Your task to perform on an android device: turn on data saver in the chrome app Image 0: 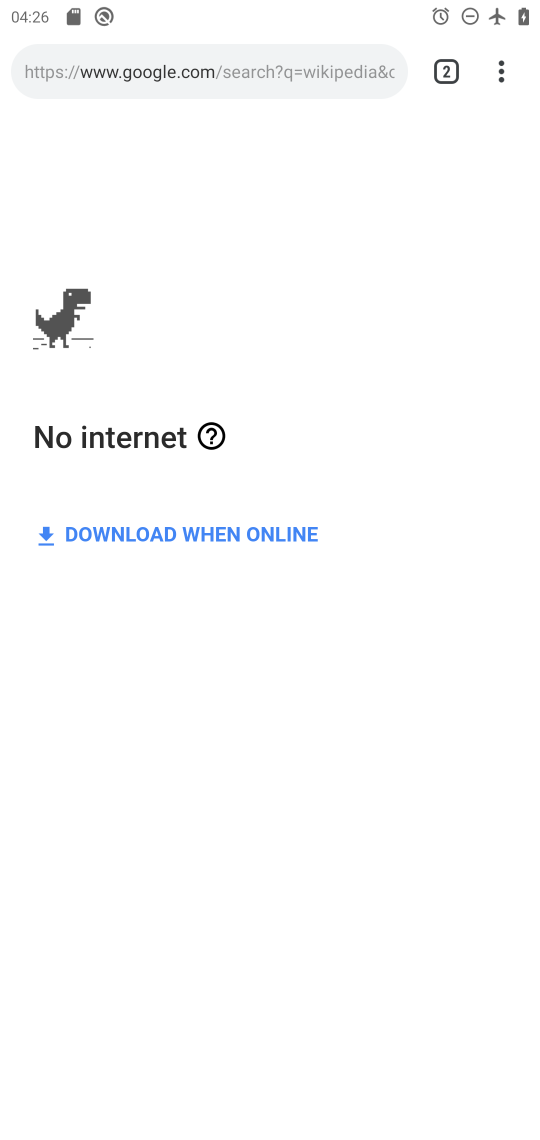
Step 0: press home button
Your task to perform on an android device: turn on data saver in the chrome app Image 1: 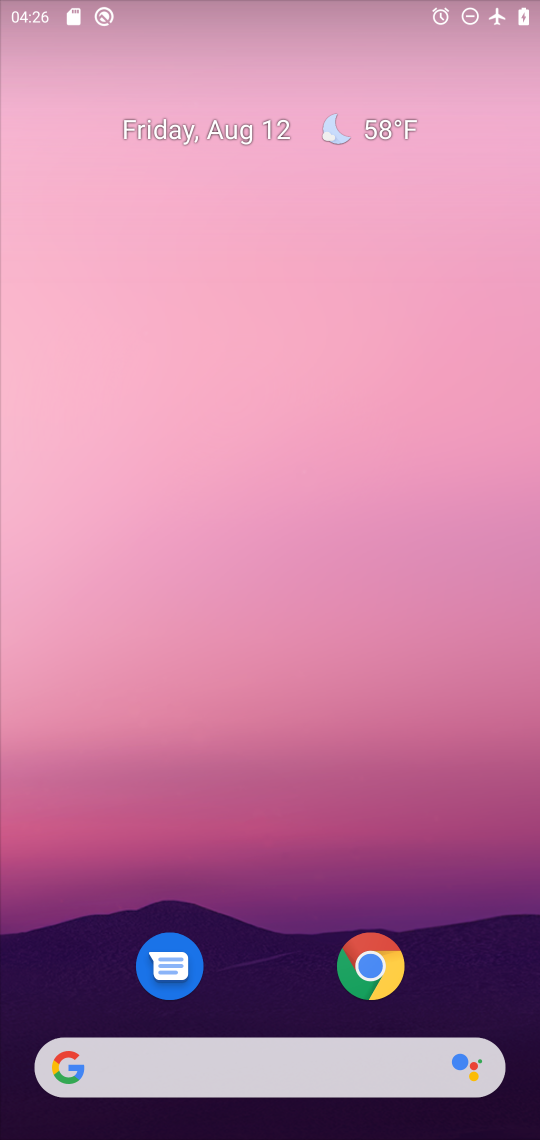
Step 1: drag from (359, 837) to (279, 12)
Your task to perform on an android device: turn on data saver in the chrome app Image 2: 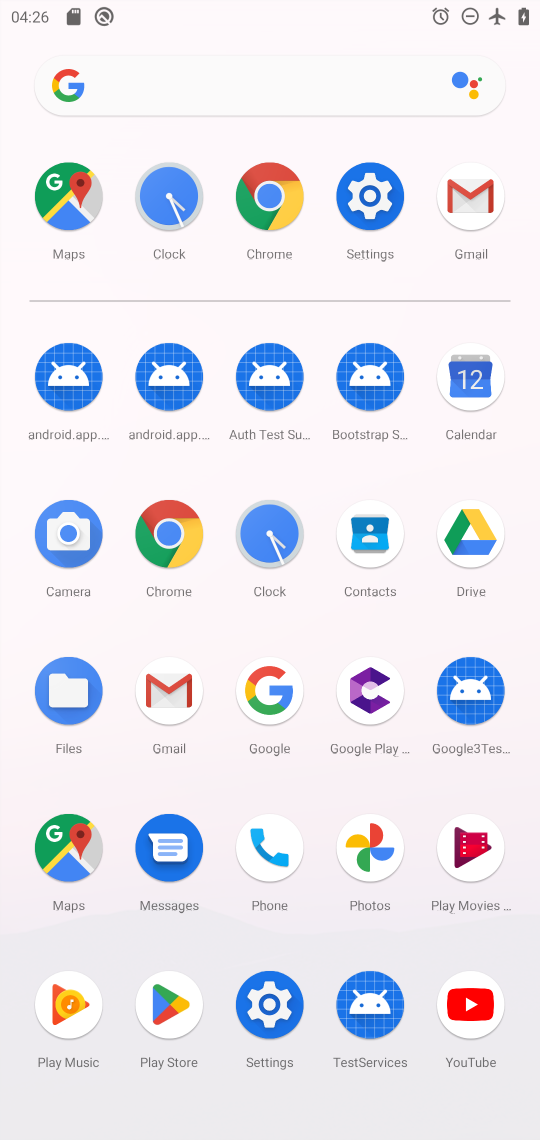
Step 2: click (163, 529)
Your task to perform on an android device: turn on data saver in the chrome app Image 3: 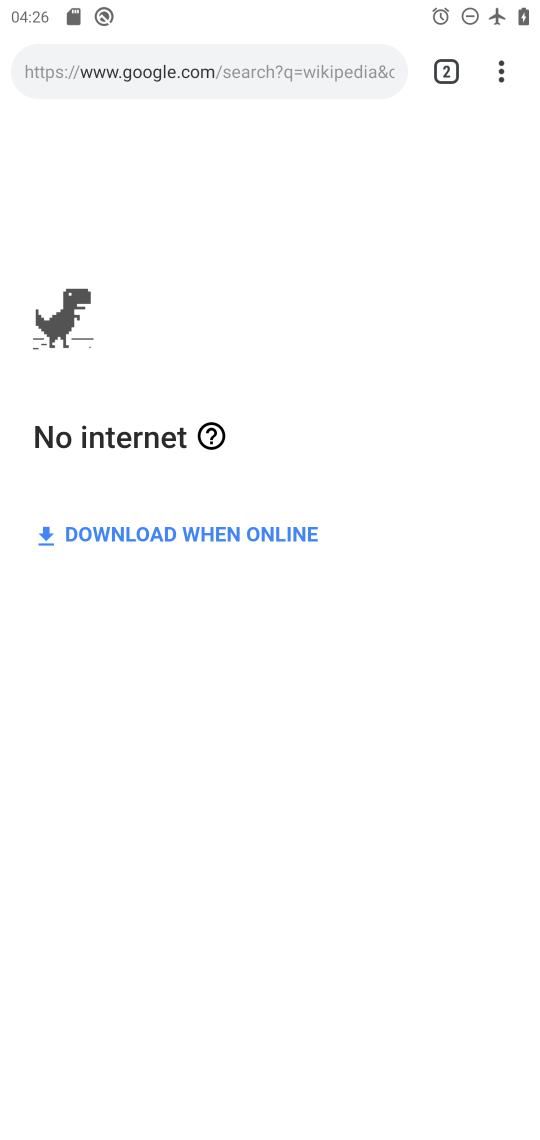
Step 3: drag from (494, 70) to (310, 785)
Your task to perform on an android device: turn on data saver in the chrome app Image 4: 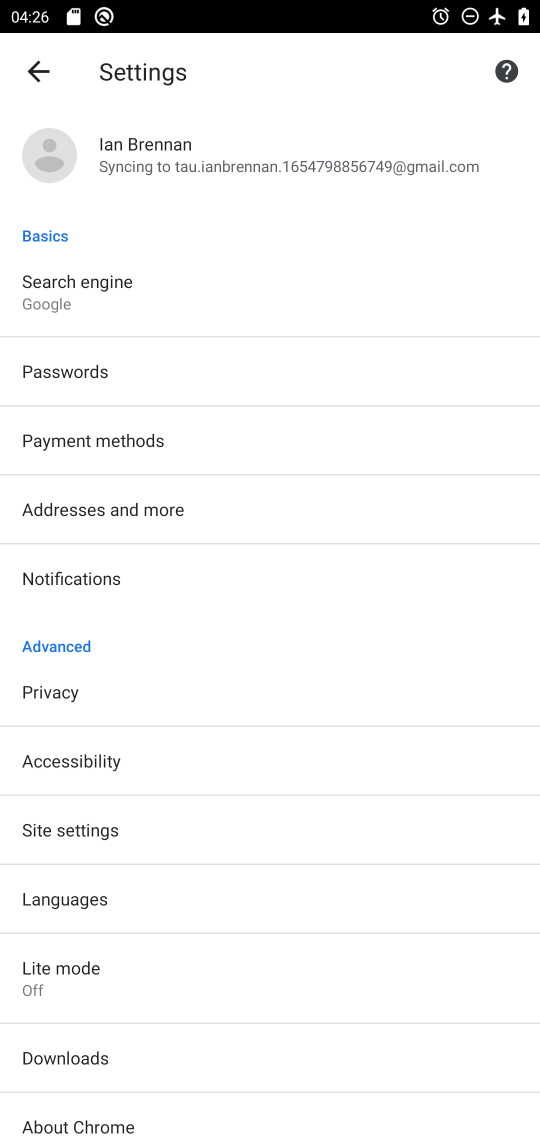
Step 4: drag from (184, 1024) to (341, 390)
Your task to perform on an android device: turn on data saver in the chrome app Image 5: 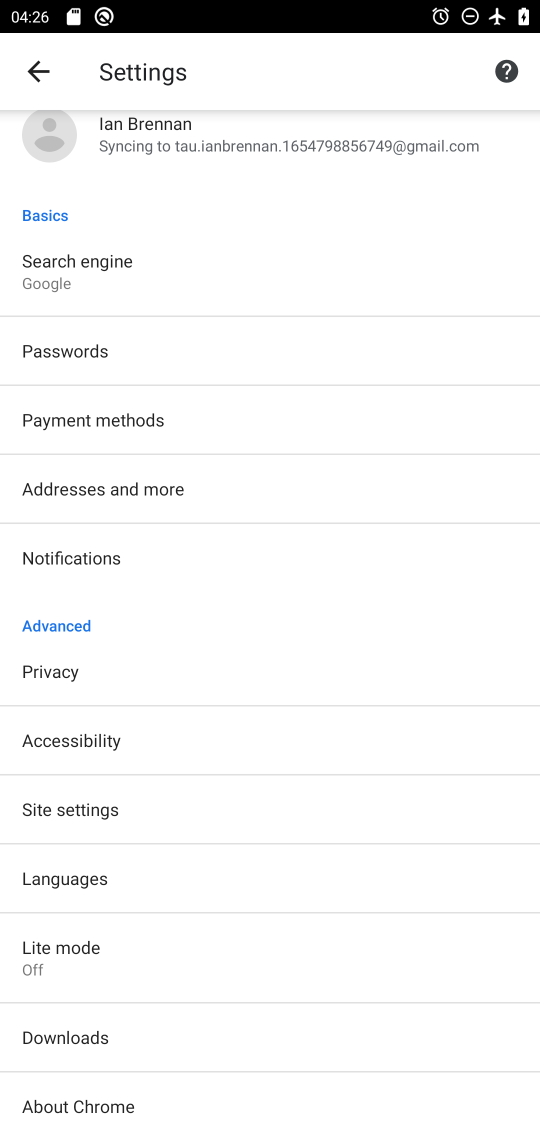
Step 5: click (136, 947)
Your task to perform on an android device: turn on data saver in the chrome app Image 6: 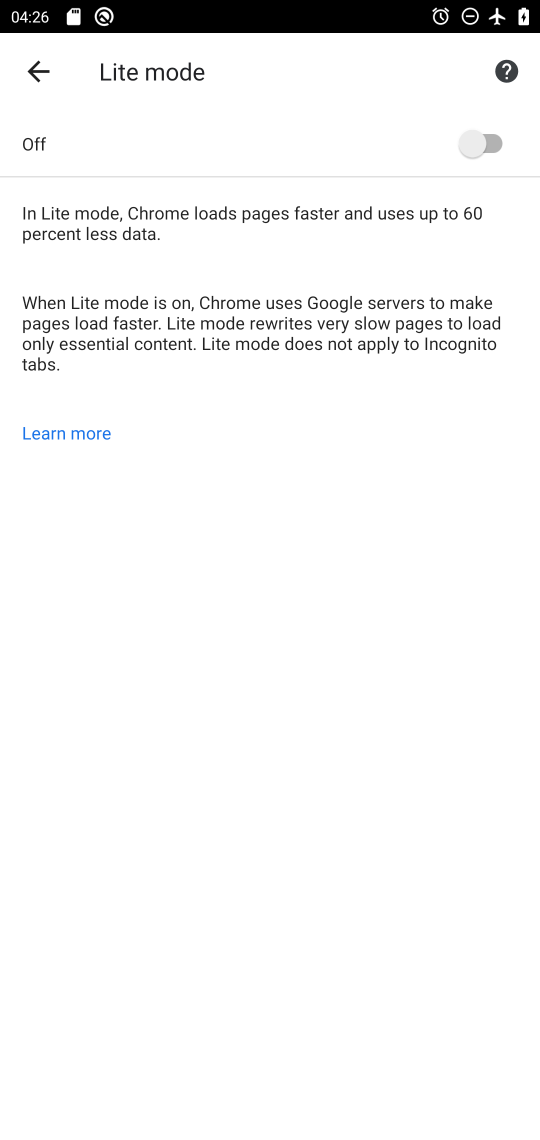
Step 6: click (486, 147)
Your task to perform on an android device: turn on data saver in the chrome app Image 7: 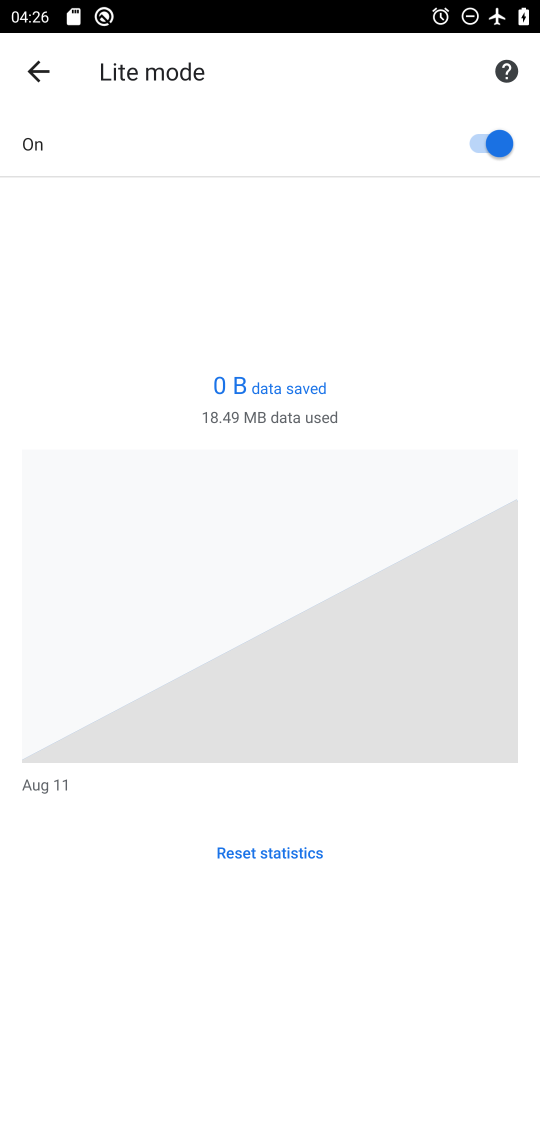
Step 7: task complete